Your task to perform on an android device: add a contact in the contacts app Image 0: 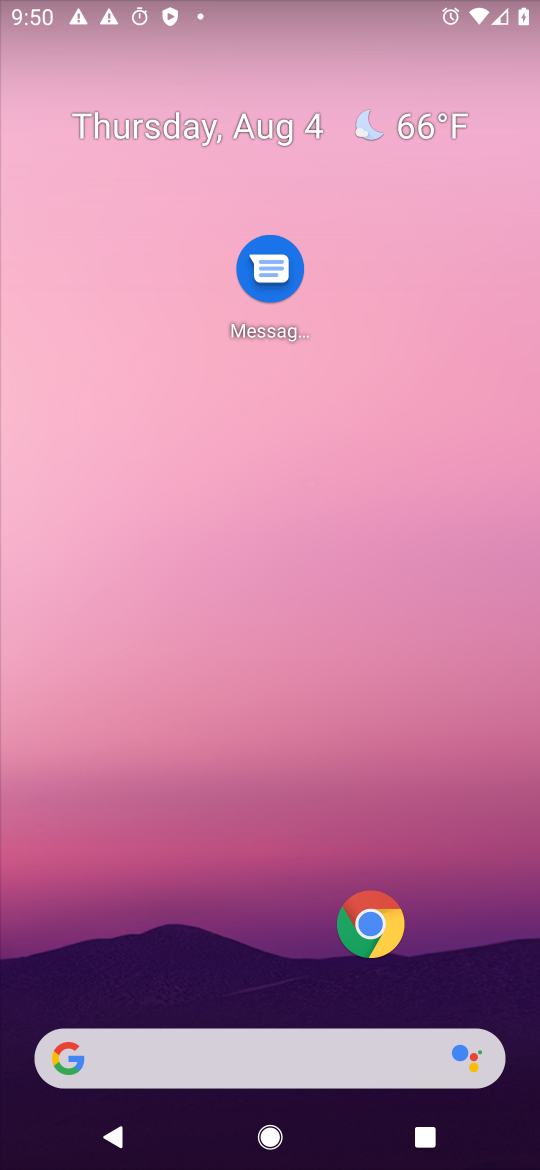
Step 0: drag from (266, 980) to (439, 100)
Your task to perform on an android device: add a contact in the contacts app Image 1: 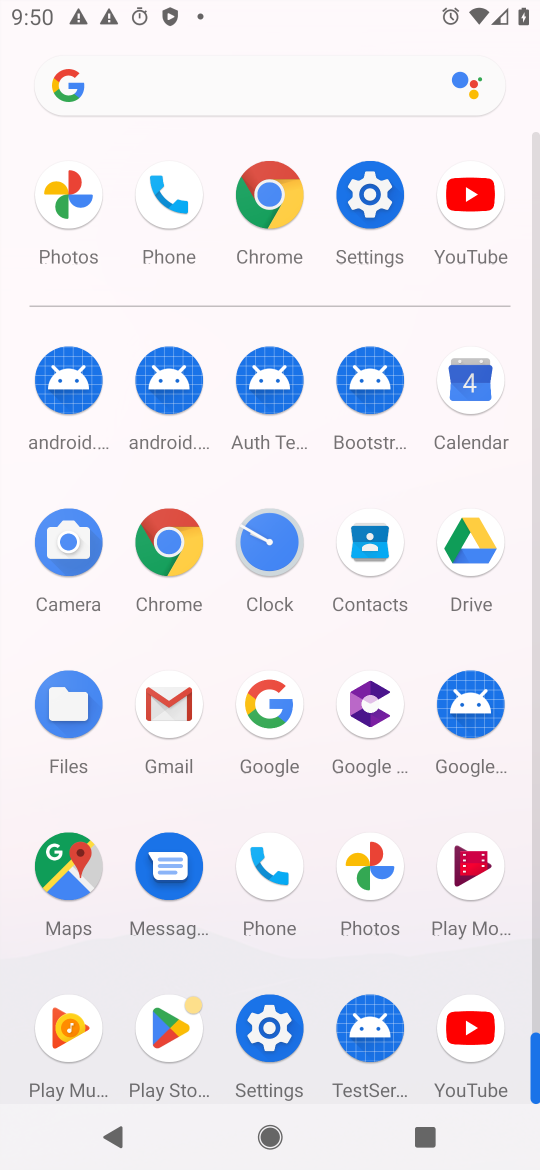
Step 1: click (368, 560)
Your task to perform on an android device: add a contact in the contacts app Image 2: 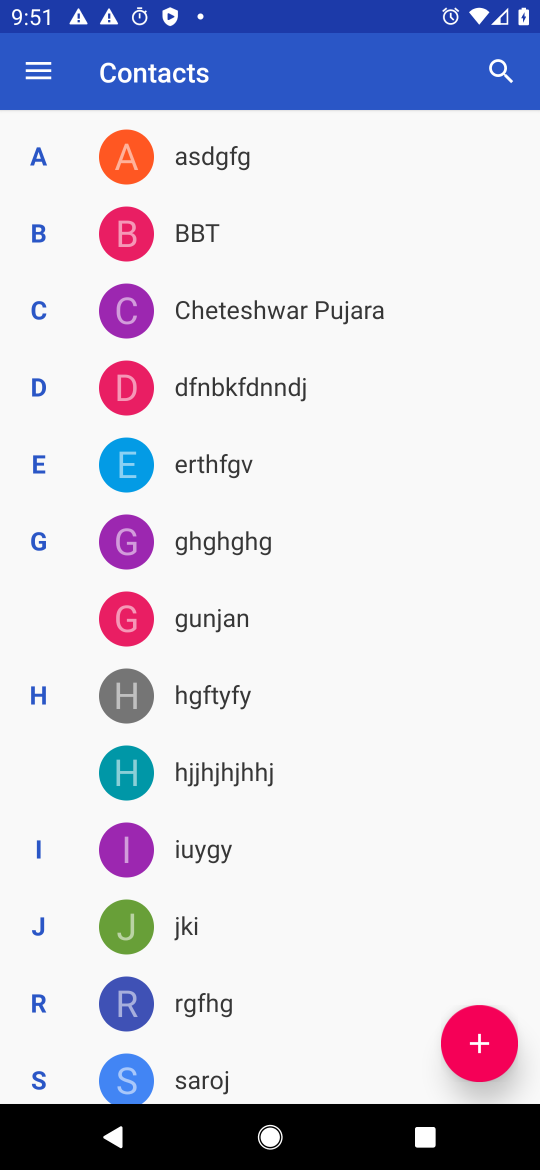
Step 2: click (457, 1056)
Your task to perform on an android device: add a contact in the contacts app Image 3: 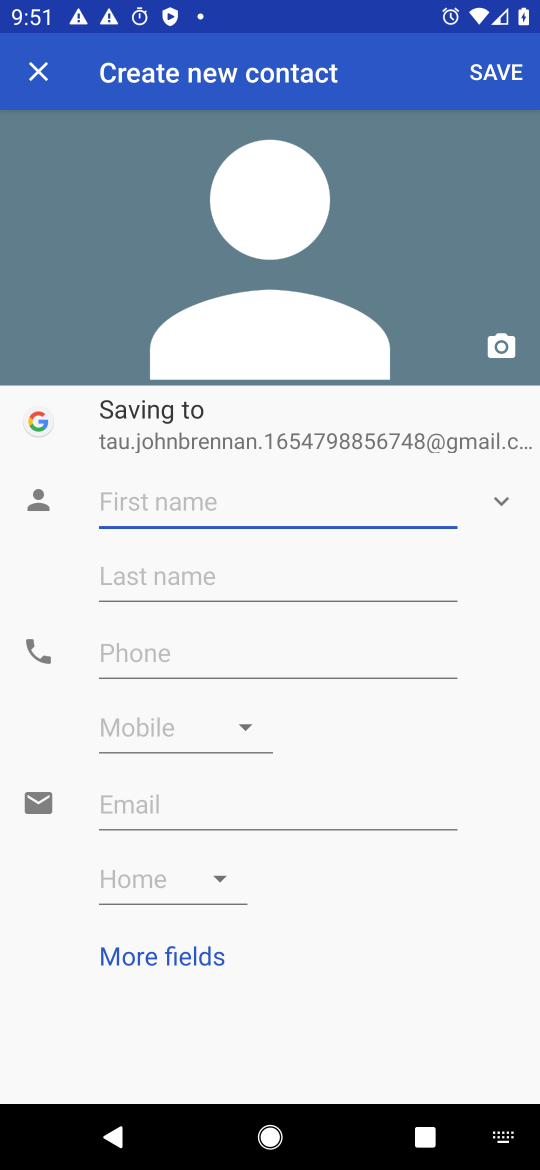
Step 3: click (177, 500)
Your task to perform on an android device: add a contact in the contacts app Image 4: 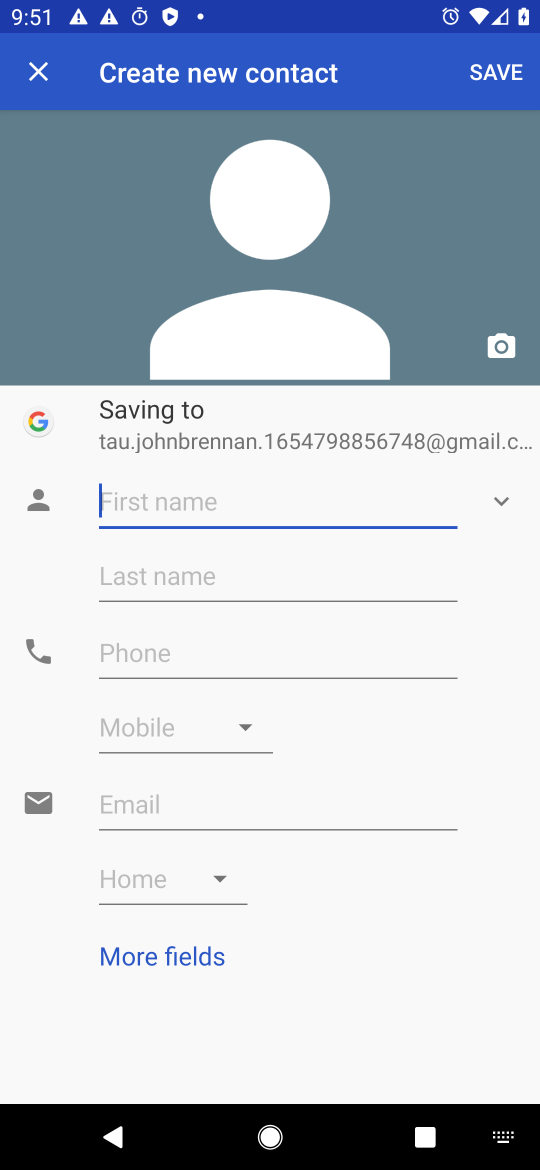
Step 4: type "makxaz"
Your task to perform on an android device: add a contact in the contacts app Image 5: 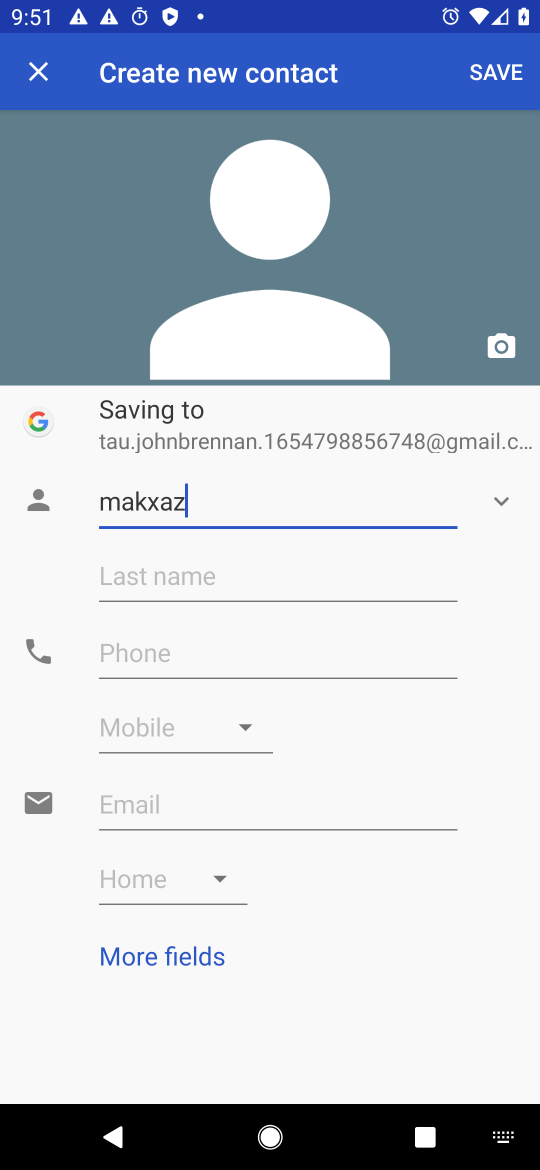
Step 5: click (483, 64)
Your task to perform on an android device: add a contact in the contacts app Image 6: 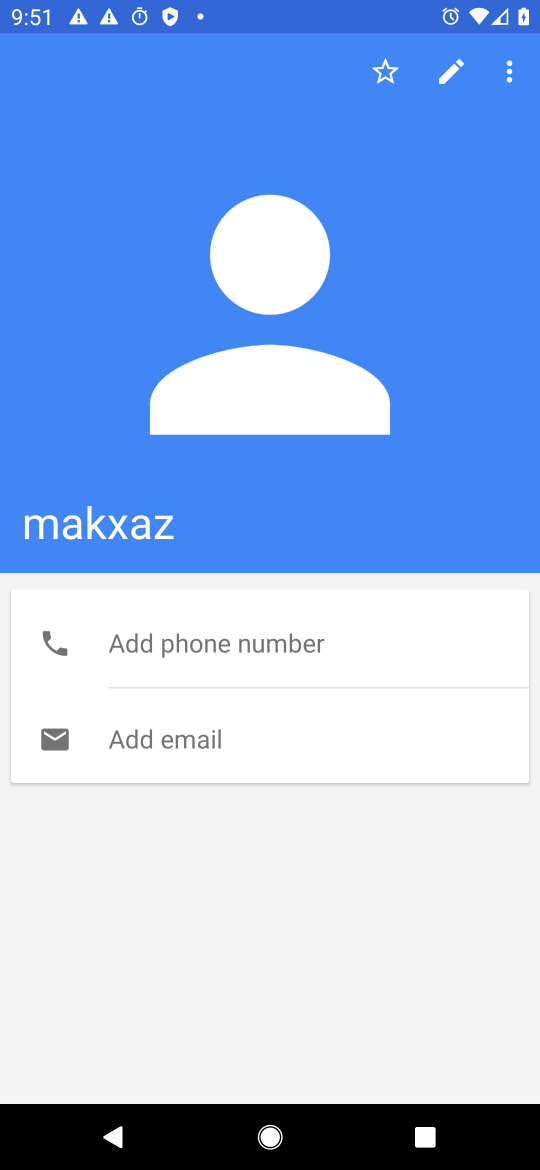
Step 6: task complete